Your task to perform on an android device: Go to calendar. Show me events next week Image 0: 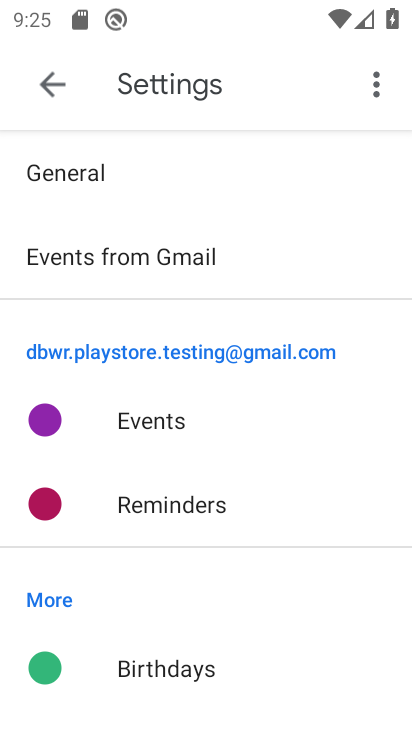
Step 0: press home button
Your task to perform on an android device: Go to calendar. Show me events next week Image 1: 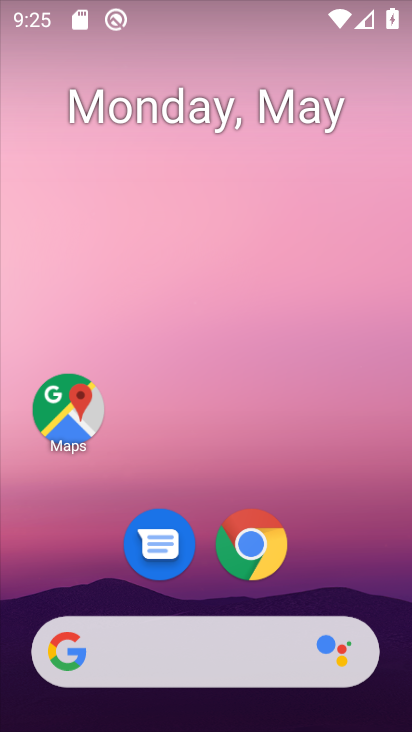
Step 1: drag from (355, 537) to (368, 229)
Your task to perform on an android device: Go to calendar. Show me events next week Image 2: 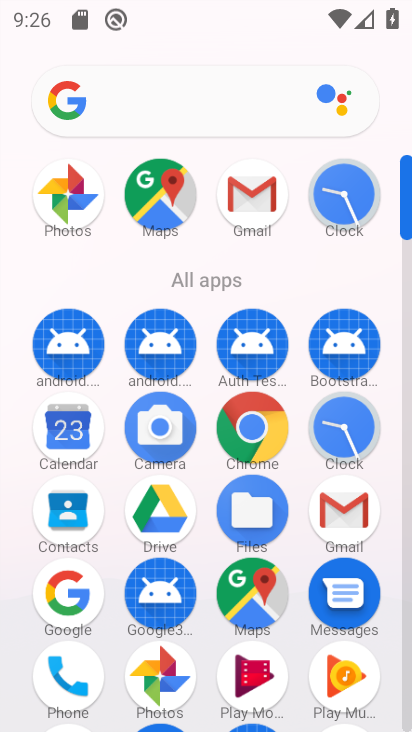
Step 2: click (71, 454)
Your task to perform on an android device: Go to calendar. Show me events next week Image 3: 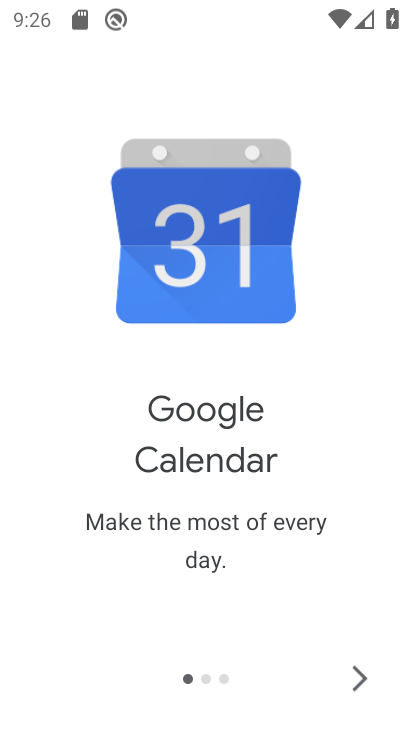
Step 3: click (362, 677)
Your task to perform on an android device: Go to calendar. Show me events next week Image 4: 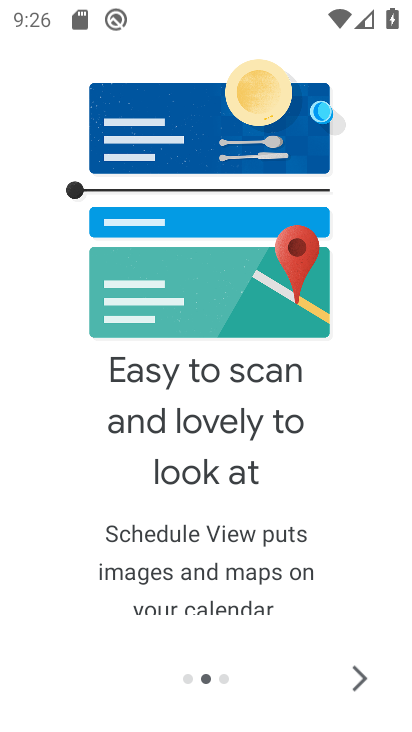
Step 4: click (338, 667)
Your task to perform on an android device: Go to calendar. Show me events next week Image 5: 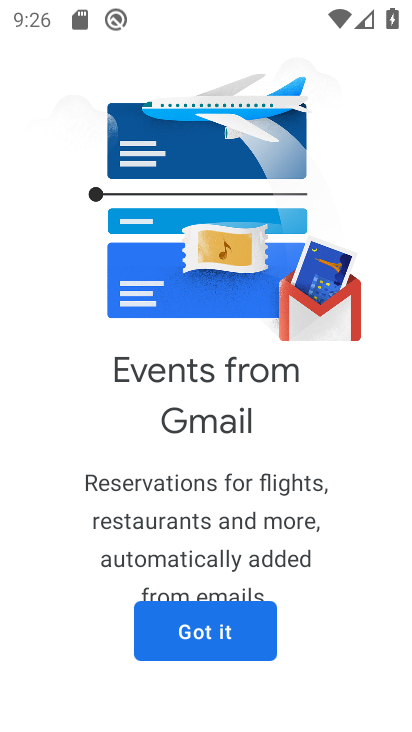
Step 5: click (359, 678)
Your task to perform on an android device: Go to calendar. Show me events next week Image 6: 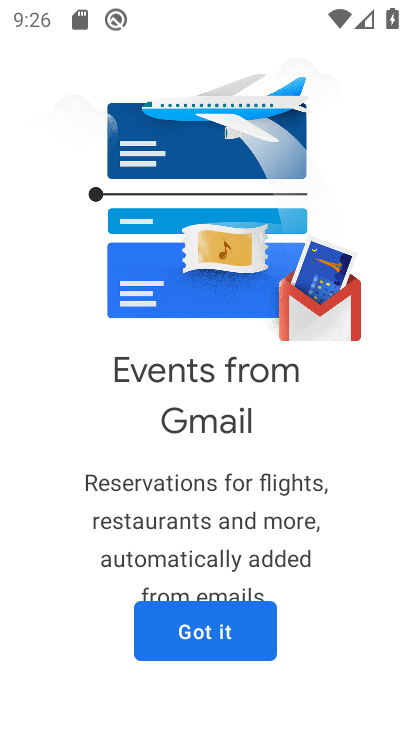
Step 6: click (232, 644)
Your task to perform on an android device: Go to calendar. Show me events next week Image 7: 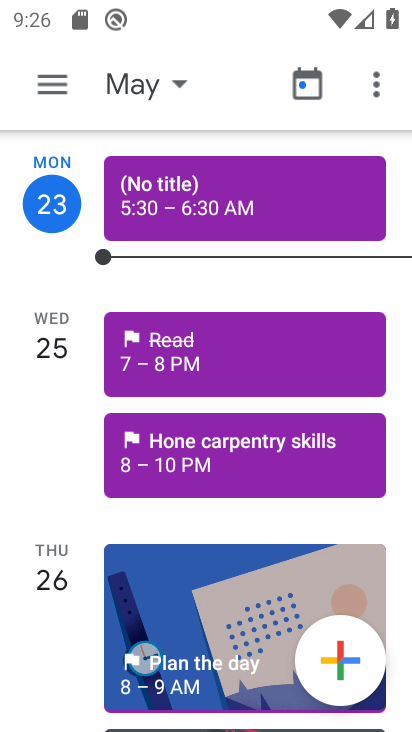
Step 7: click (137, 88)
Your task to perform on an android device: Go to calendar. Show me events next week Image 8: 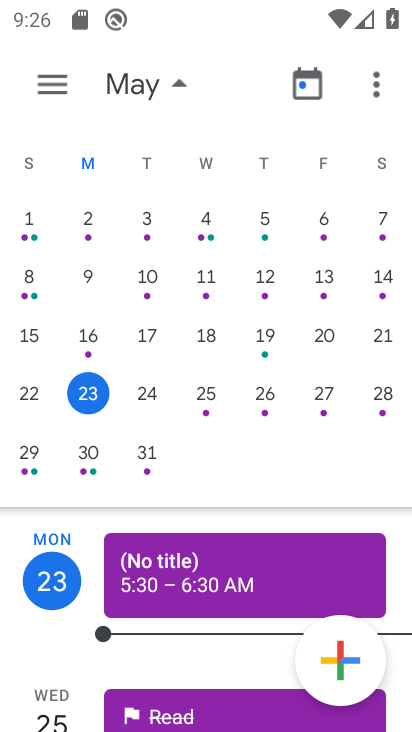
Step 8: click (27, 456)
Your task to perform on an android device: Go to calendar. Show me events next week Image 9: 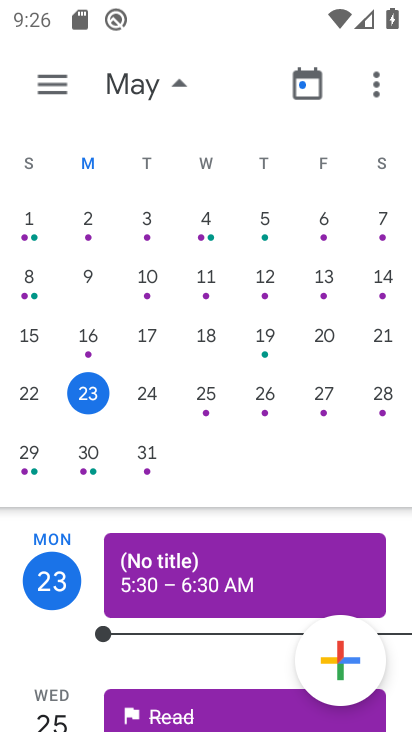
Step 9: click (29, 456)
Your task to perform on an android device: Go to calendar. Show me events next week Image 10: 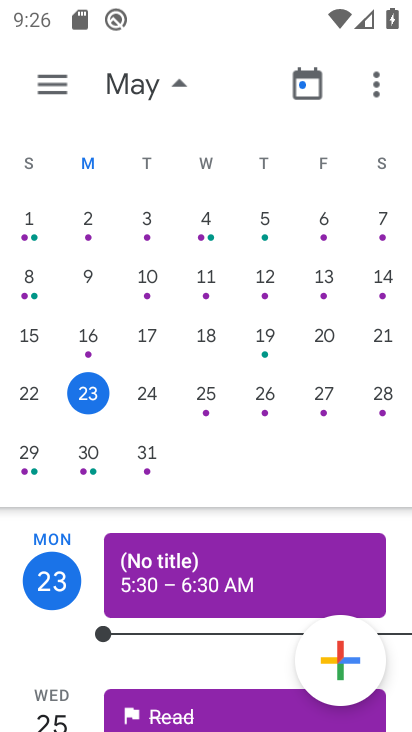
Step 10: click (33, 457)
Your task to perform on an android device: Go to calendar. Show me events next week Image 11: 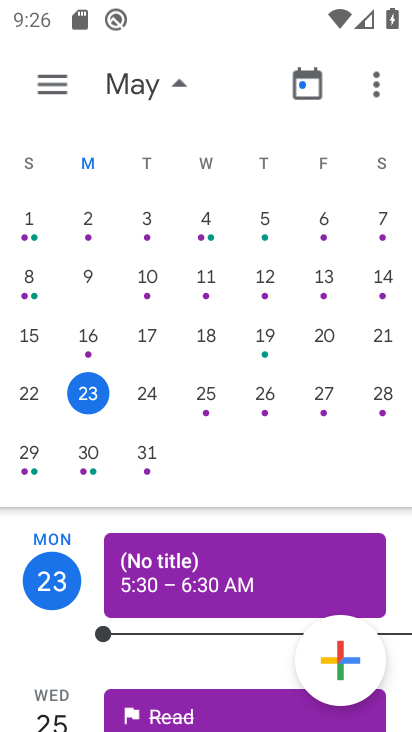
Step 11: click (37, 463)
Your task to perform on an android device: Go to calendar. Show me events next week Image 12: 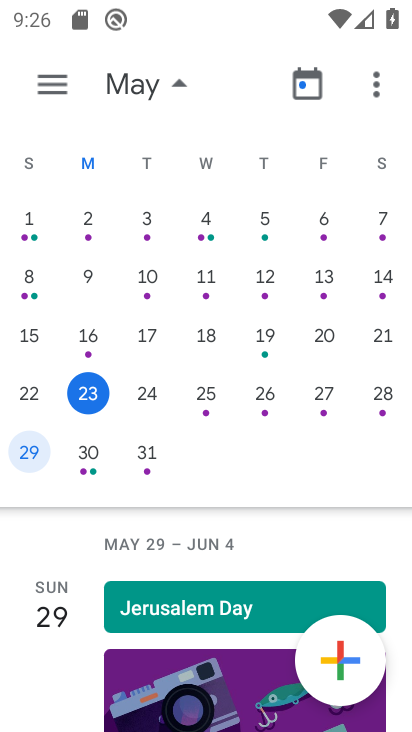
Step 12: task complete